Your task to perform on an android device: Show the shopping cart on costco. Image 0: 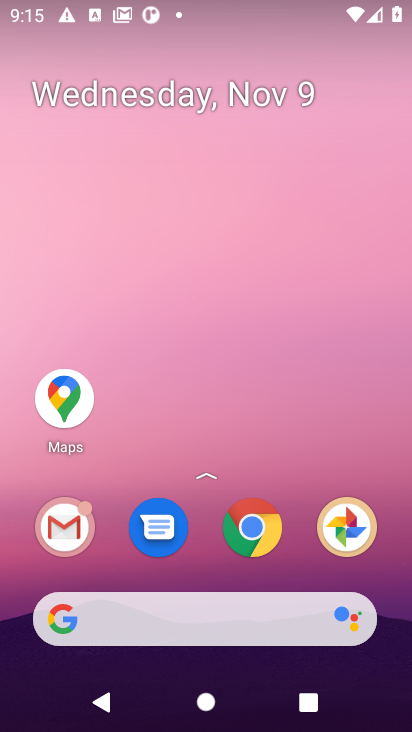
Step 0: click (254, 532)
Your task to perform on an android device: Show the shopping cart on costco. Image 1: 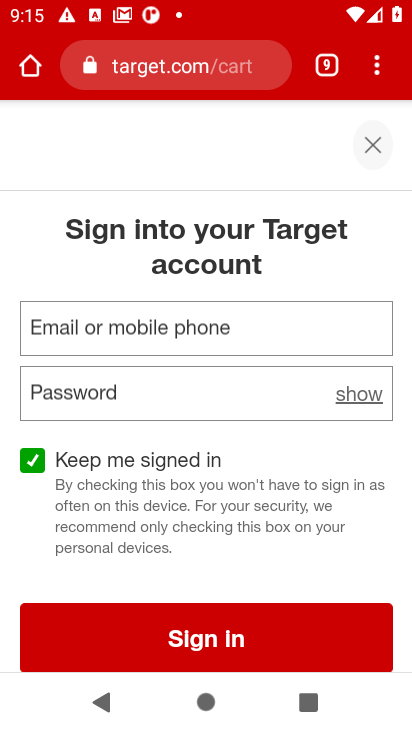
Step 1: click (173, 72)
Your task to perform on an android device: Show the shopping cart on costco. Image 2: 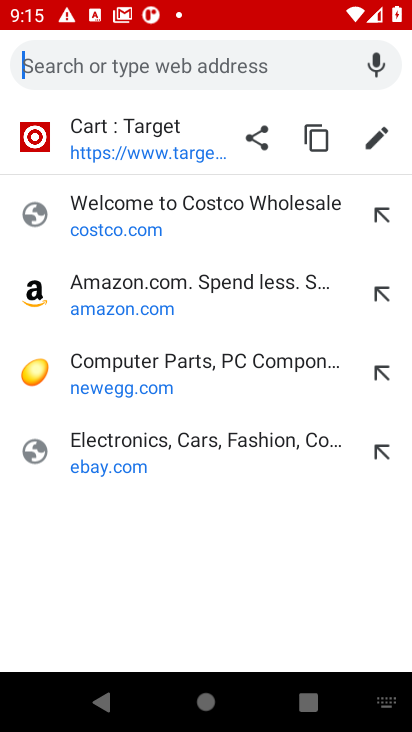
Step 2: click (117, 223)
Your task to perform on an android device: Show the shopping cart on costco. Image 3: 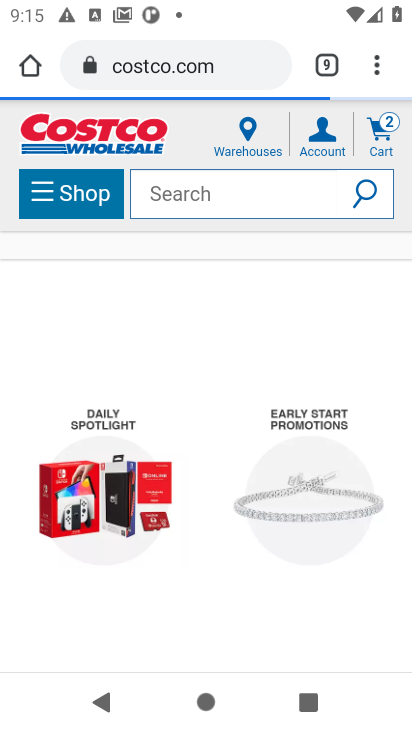
Step 3: click (374, 131)
Your task to perform on an android device: Show the shopping cart on costco. Image 4: 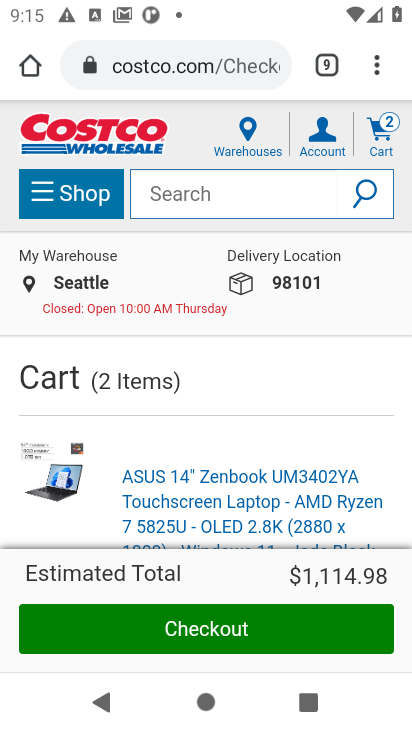
Step 4: task complete